Your task to perform on an android device: Go to privacy settings Image 0: 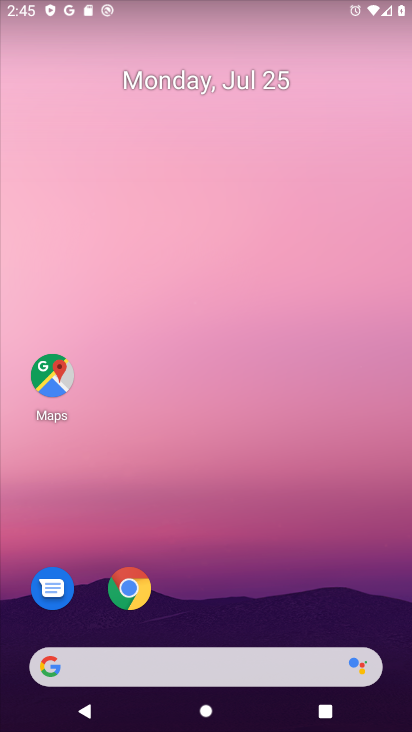
Step 0: press home button
Your task to perform on an android device: Go to privacy settings Image 1: 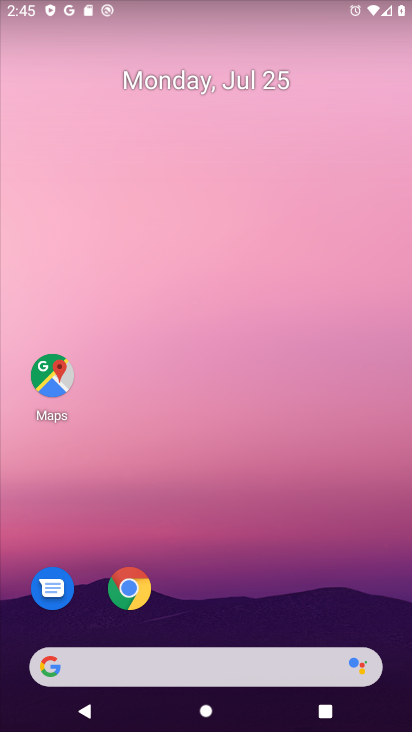
Step 1: drag from (219, 625) to (199, 27)
Your task to perform on an android device: Go to privacy settings Image 2: 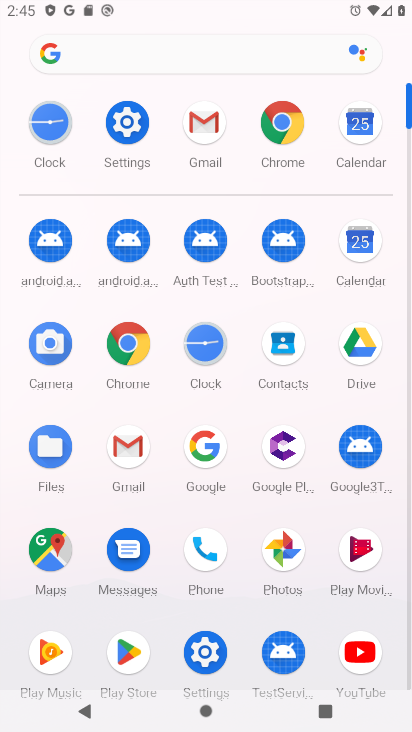
Step 2: click (123, 115)
Your task to perform on an android device: Go to privacy settings Image 3: 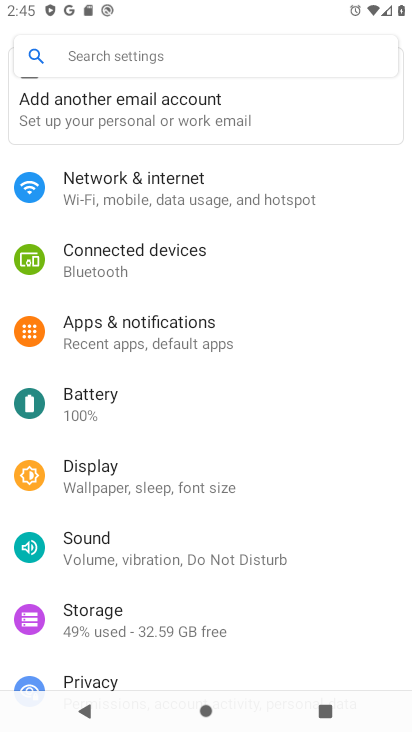
Step 3: click (139, 676)
Your task to perform on an android device: Go to privacy settings Image 4: 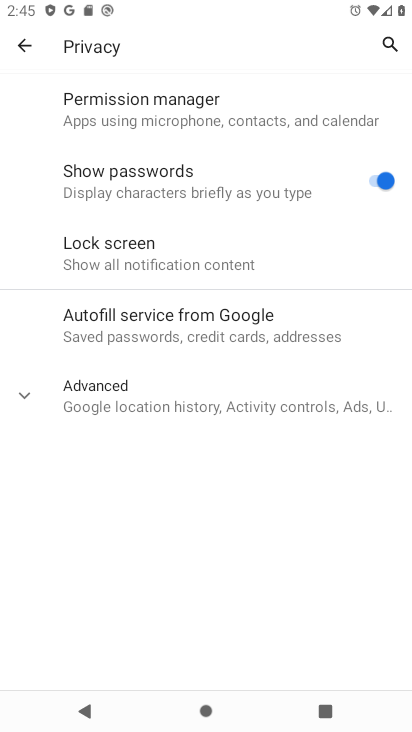
Step 4: click (23, 392)
Your task to perform on an android device: Go to privacy settings Image 5: 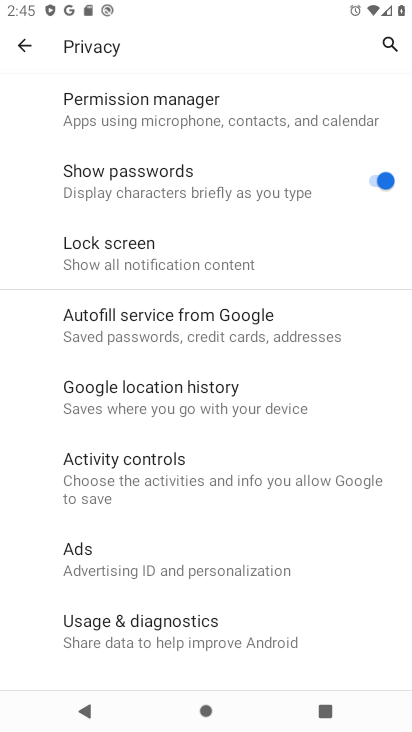
Step 5: task complete